Your task to perform on an android device: What is the capital of India? Image 0: 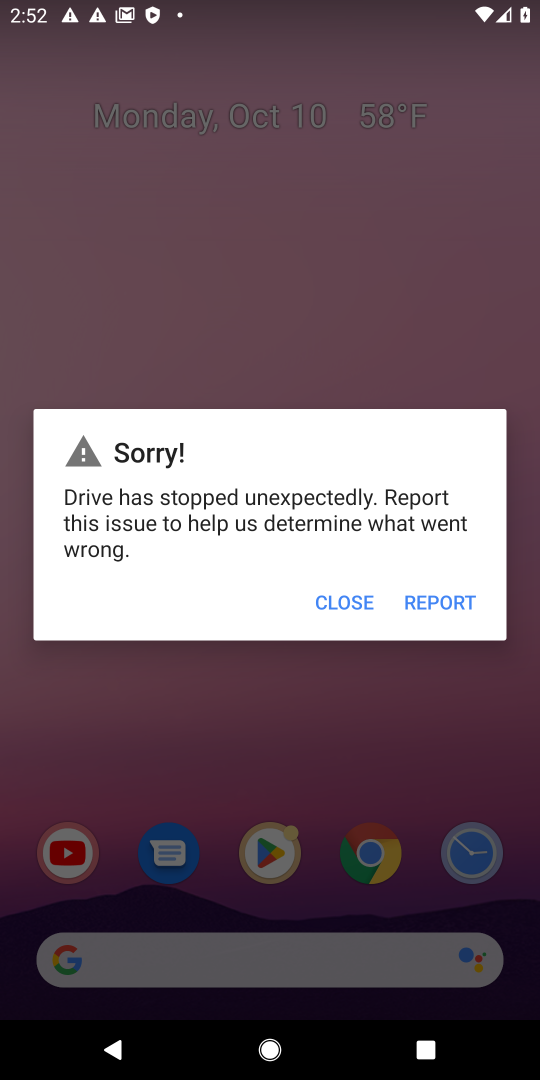
Step 0: click (309, 599)
Your task to perform on an android device: What is the capital of India? Image 1: 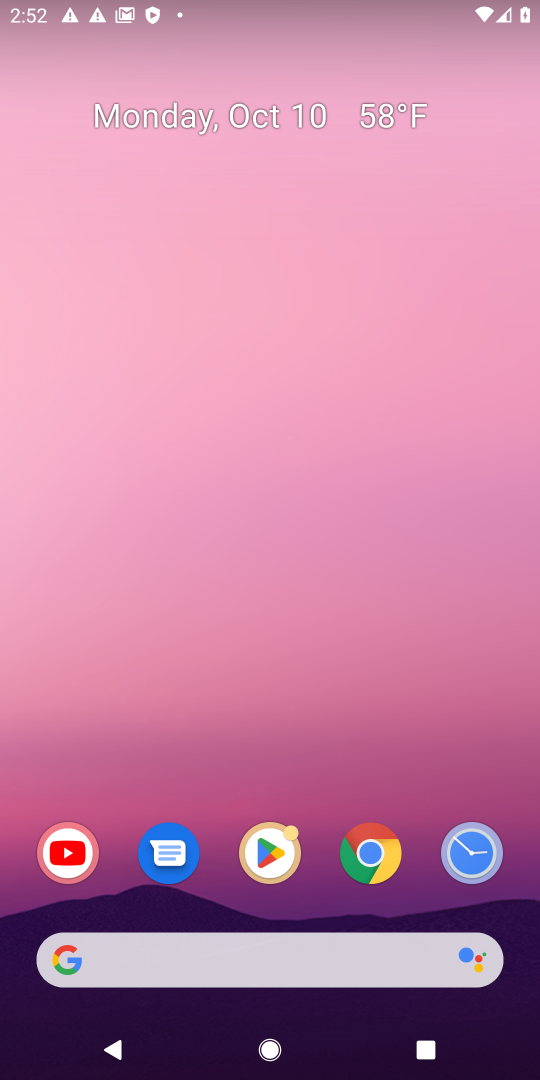
Step 1: click (310, 951)
Your task to perform on an android device: What is the capital of India? Image 2: 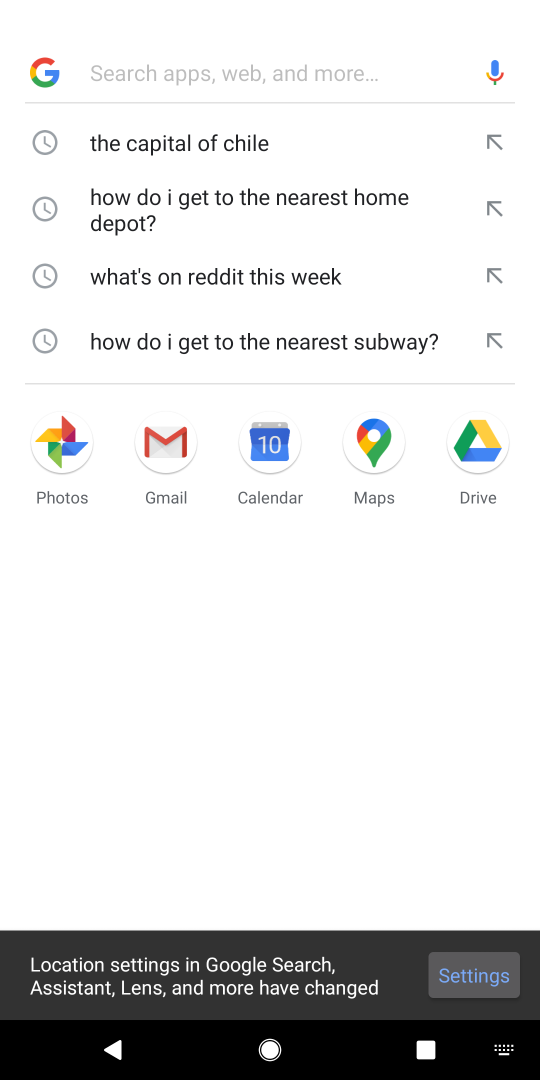
Step 2: click (199, 73)
Your task to perform on an android device: What is the capital of India? Image 3: 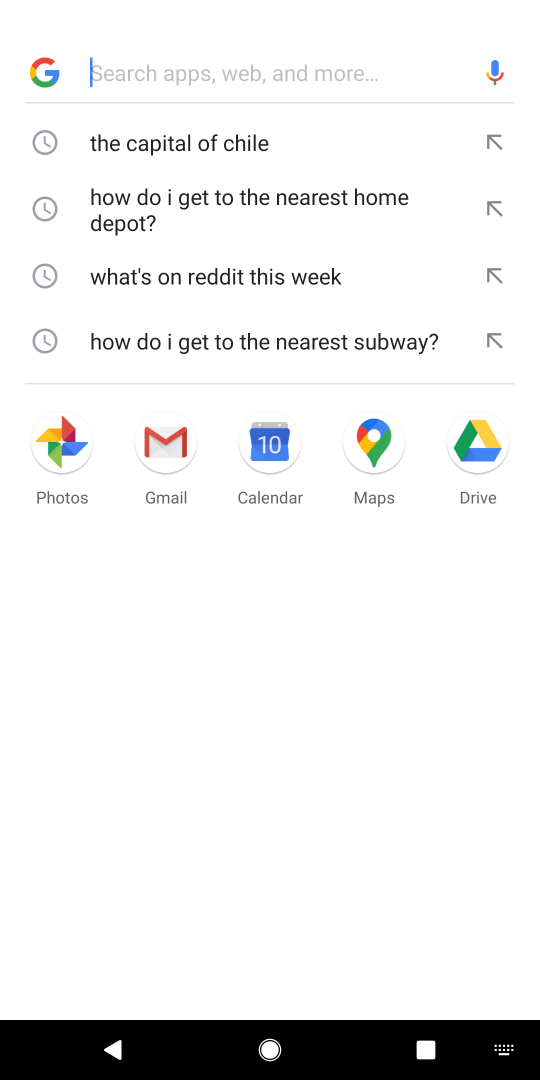
Step 3: type "What is the capital of India?"
Your task to perform on an android device: What is the capital of India? Image 4: 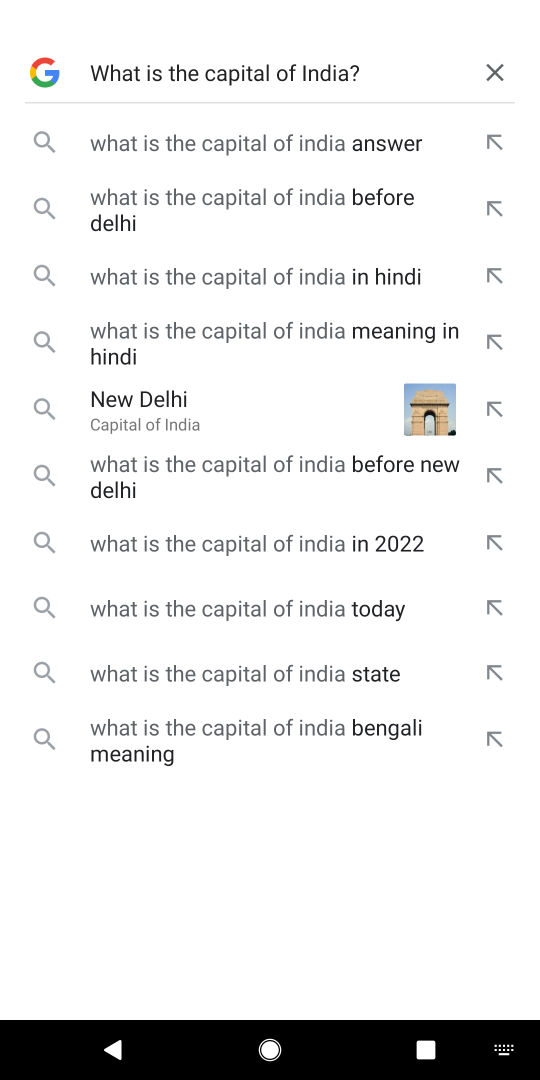
Step 4: click (229, 141)
Your task to perform on an android device: What is the capital of India? Image 5: 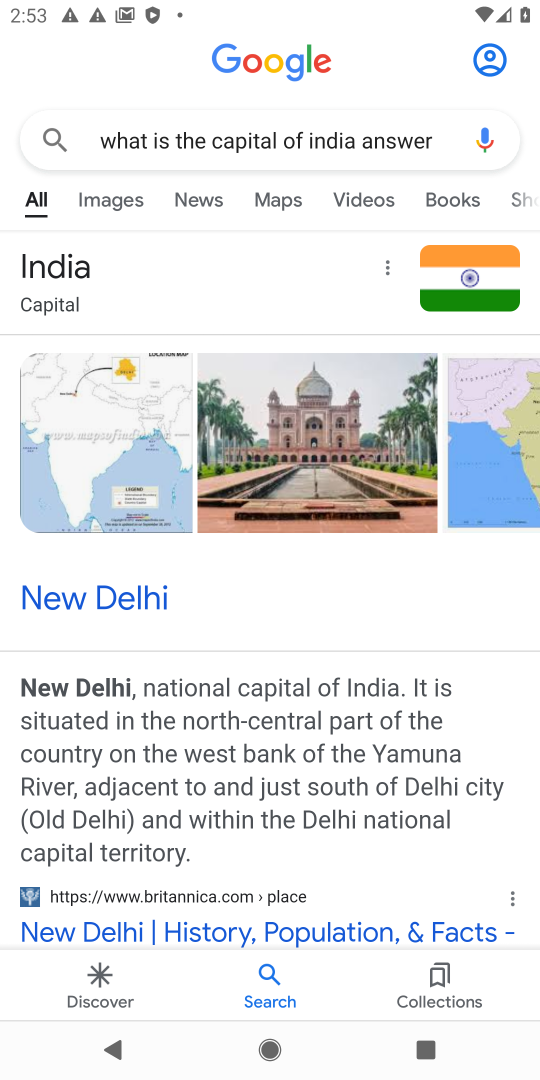
Step 5: task complete